Your task to perform on an android device: What's the weather going to be tomorrow? Image 0: 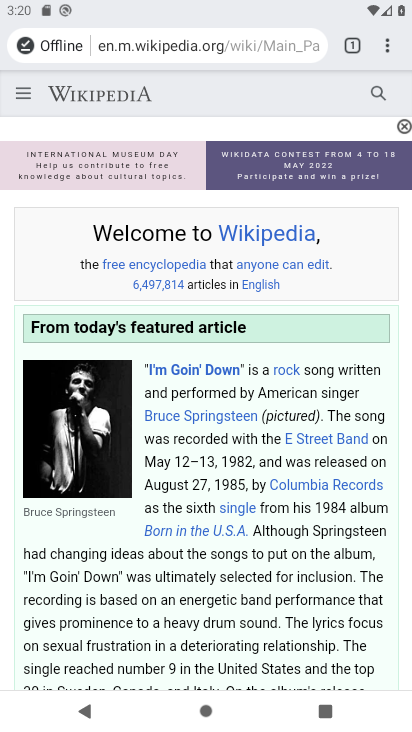
Step 0: press home button
Your task to perform on an android device: What's the weather going to be tomorrow? Image 1: 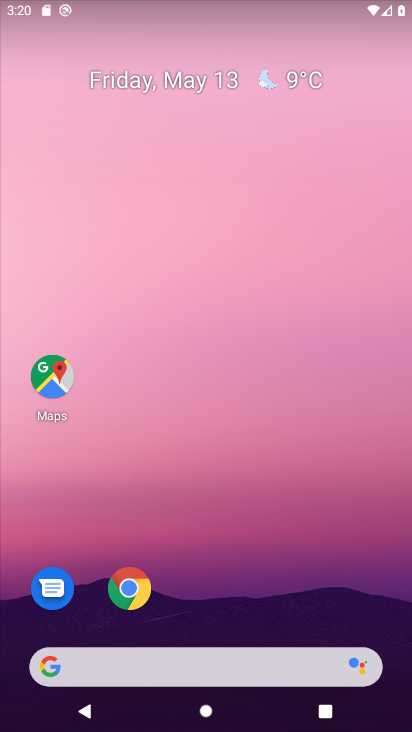
Step 1: click (315, 88)
Your task to perform on an android device: What's the weather going to be tomorrow? Image 2: 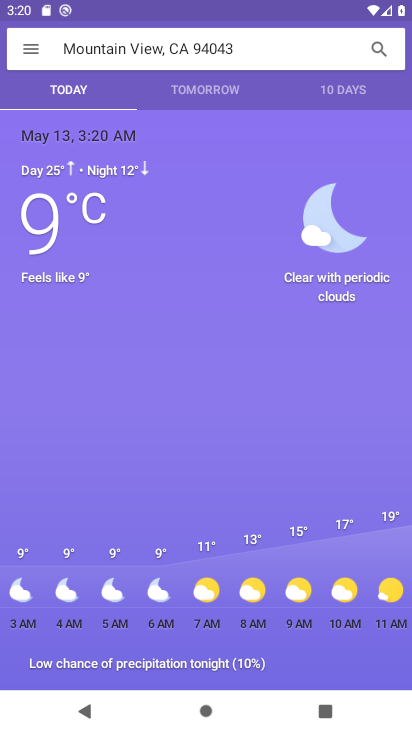
Step 2: click (222, 98)
Your task to perform on an android device: What's the weather going to be tomorrow? Image 3: 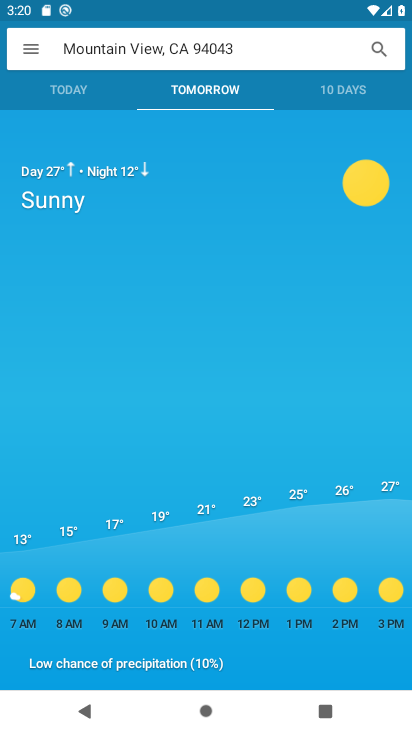
Step 3: task complete